Your task to perform on an android device: Open Google Maps Image 0: 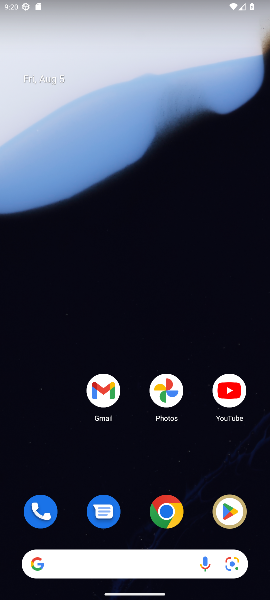
Step 0: drag from (92, 561) to (119, 95)
Your task to perform on an android device: Open Google Maps Image 1: 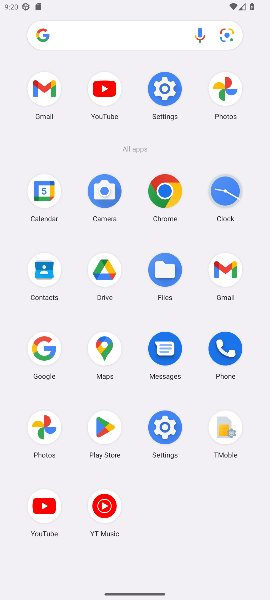
Step 1: click (105, 344)
Your task to perform on an android device: Open Google Maps Image 2: 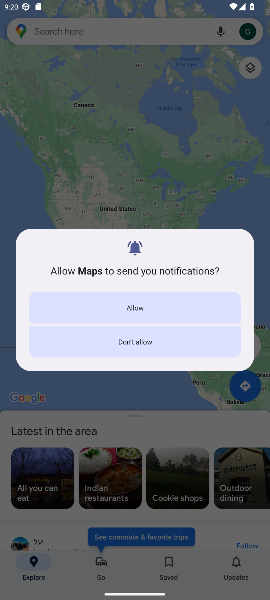
Step 2: click (135, 338)
Your task to perform on an android device: Open Google Maps Image 3: 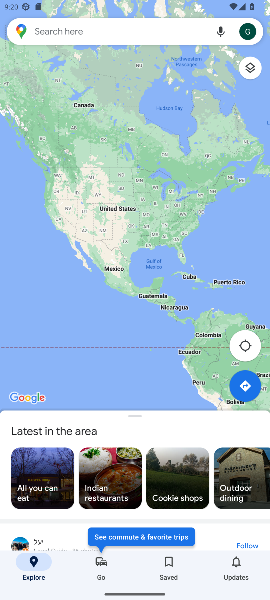
Step 3: task complete